Your task to perform on an android device: turn off notifications settings in the gmail app Image 0: 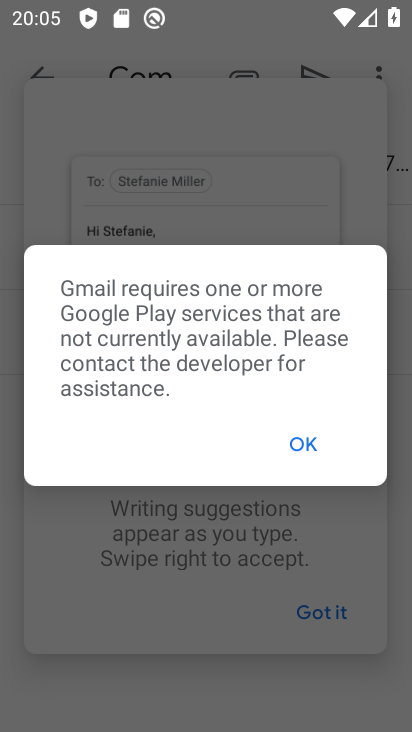
Step 0: press home button
Your task to perform on an android device: turn off notifications settings in the gmail app Image 1: 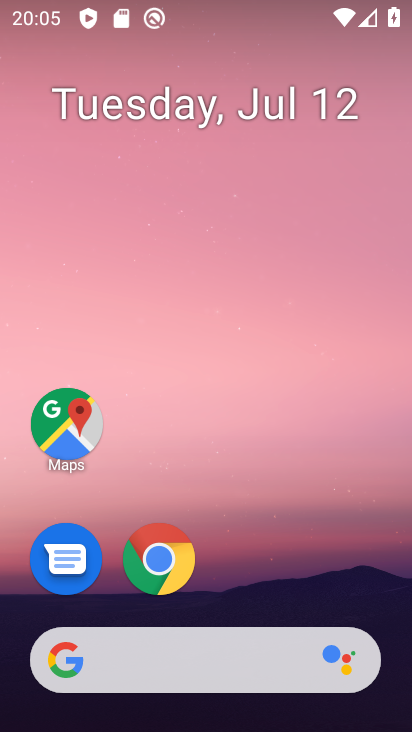
Step 1: drag from (328, 570) to (332, 154)
Your task to perform on an android device: turn off notifications settings in the gmail app Image 2: 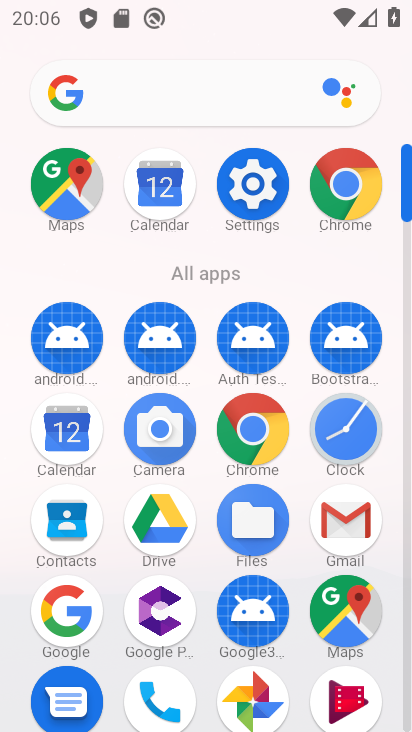
Step 2: click (349, 516)
Your task to perform on an android device: turn off notifications settings in the gmail app Image 3: 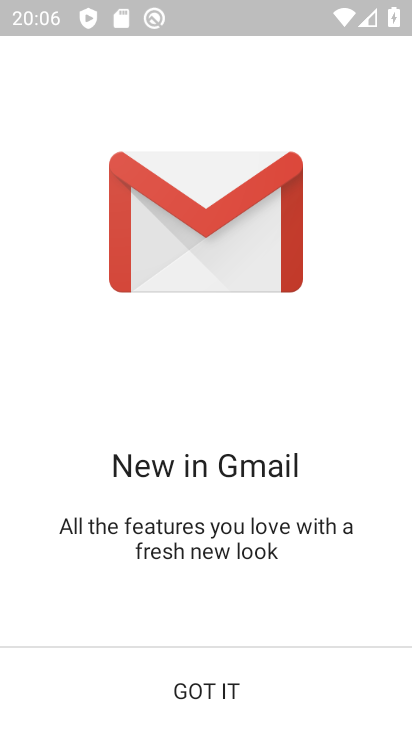
Step 3: click (233, 677)
Your task to perform on an android device: turn off notifications settings in the gmail app Image 4: 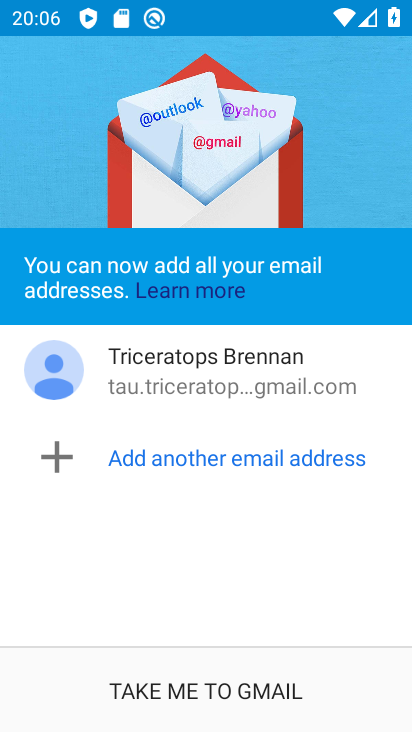
Step 4: click (215, 699)
Your task to perform on an android device: turn off notifications settings in the gmail app Image 5: 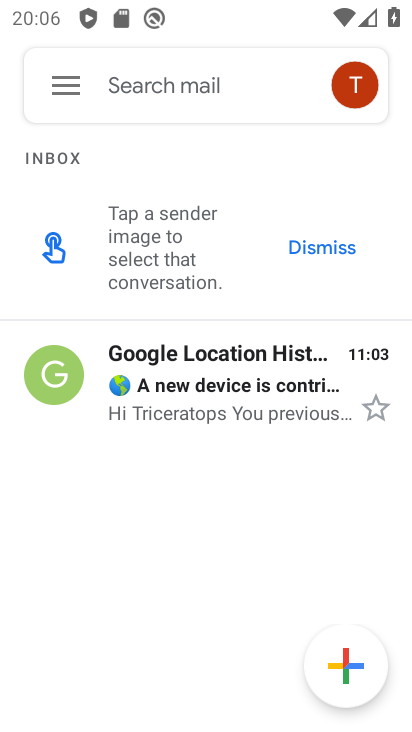
Step 5: click (63, 79)
Your task to perform on an android device: turn off notifications settings in the gmail app Image 6: 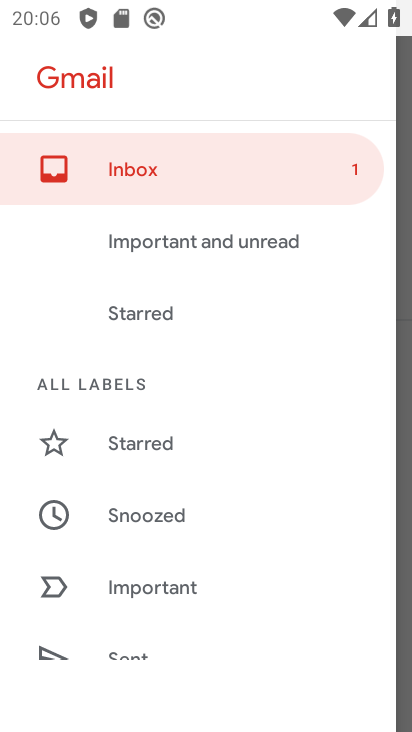
Step 6: drag from (260, 458) to (278, 331)
Your task to perform on an android device: turn off notifications settings in the gmail app Image 7: 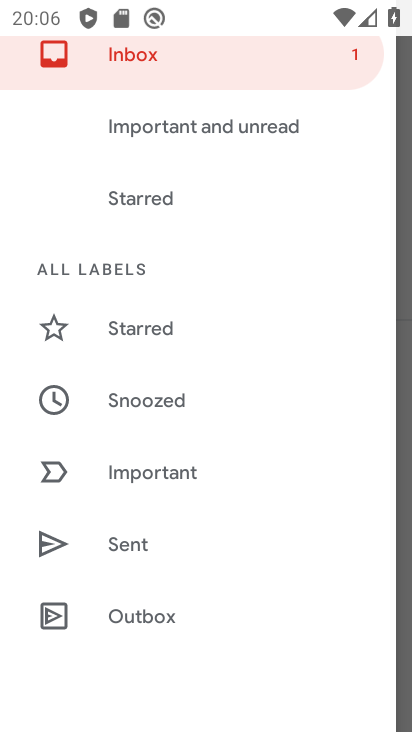
Step 7: drag from (292, 408) to (293, 303)
Your task to perform on an android device: turn off notifications settings in the gmail app Image 8: 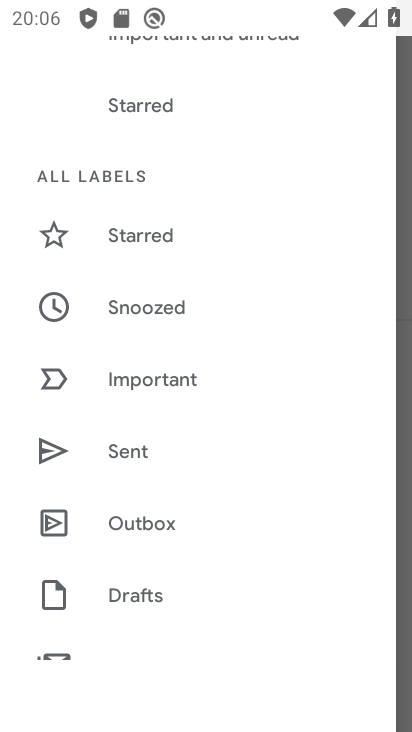
Step 8: drag from (313, 445) to (310, 322)
Your task to perform on an android device: turn off notifications settings in the gmail app Image 9: 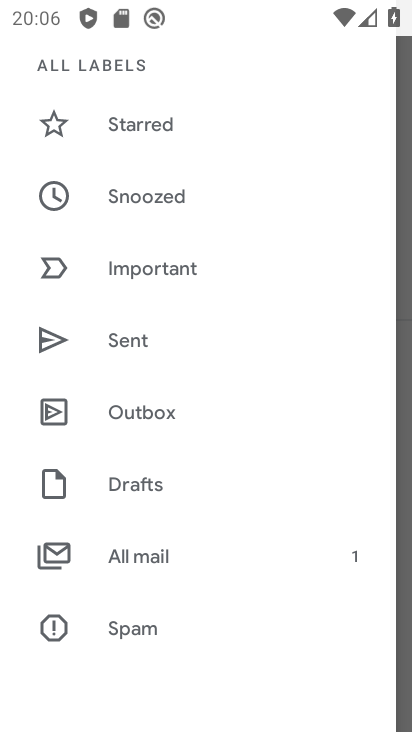
Step 9: drag from (303, 443) to (303, 288)
Your task to perform on an android device: turn off notifications settings in the gmail app Image 10: 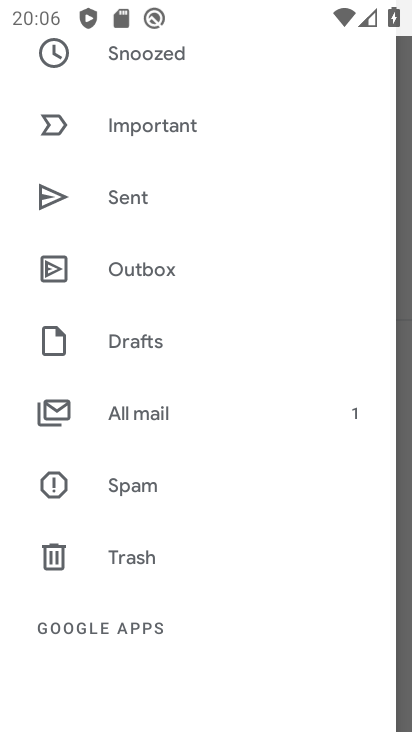
Step 10: drag from (297, 426) to (298, 320)
Your task to perform on an android device: turn off notifications settings in the gmail app Image 11: 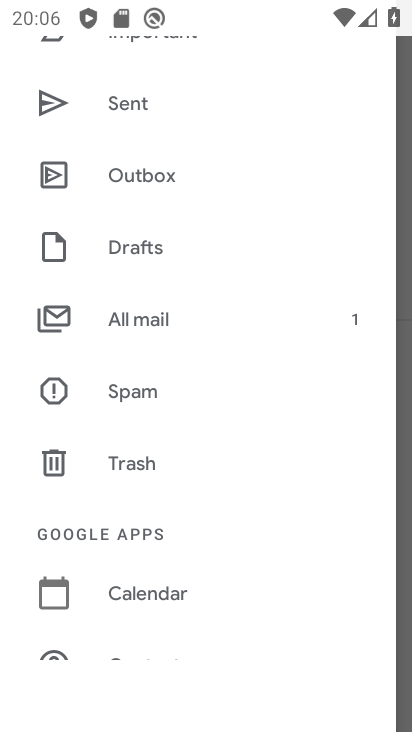
Step 11: drag from (280, 474) to (272, 223)
Your task to perform on an android device: turn off notifications settings in the gmail app Image 12: 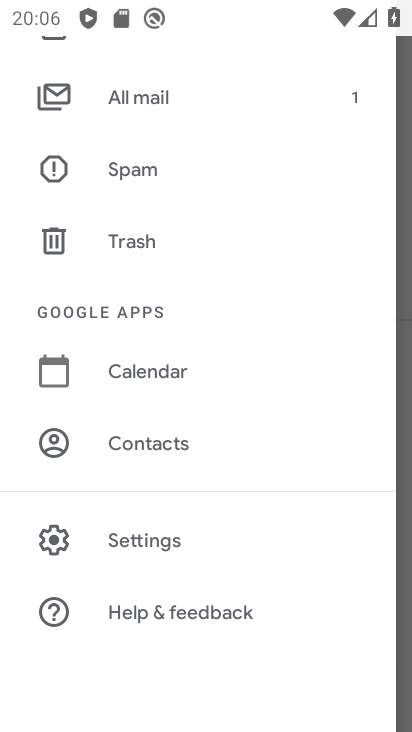
Step 12: click (241, 540)
Your task to perform on an android device: turn off notifications settings in the gmail app Image 13: 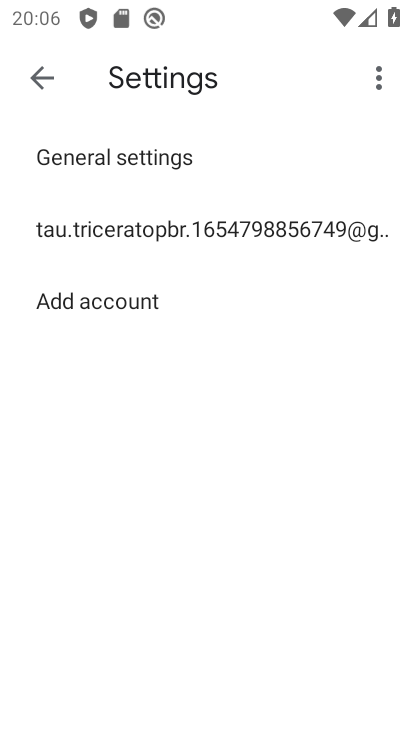
Step 13: click (239, 230)
Your task to perform on an android device: turn off notifications settings in the gmail app Image 14: 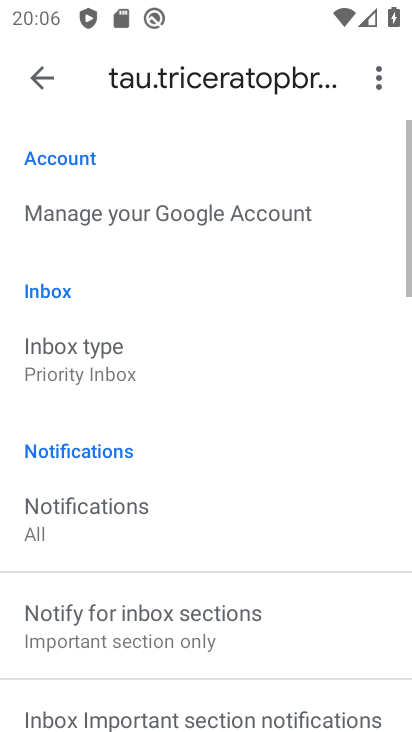
Step 14: drag from (271, 367) to (278, 311)
Your task to perform on an android device: turn off notifications settings in the gmail app Image 15: 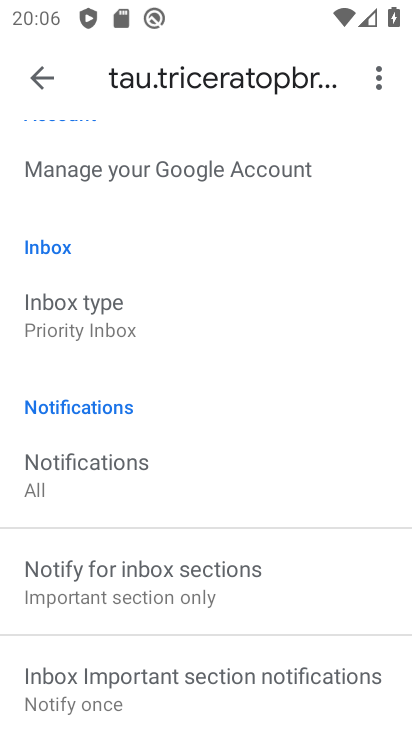
Step 15: drag from (284, 418) to (287, 330)
Your task to perform on an android device: turn off notifications settings in the gmail app Image 16: 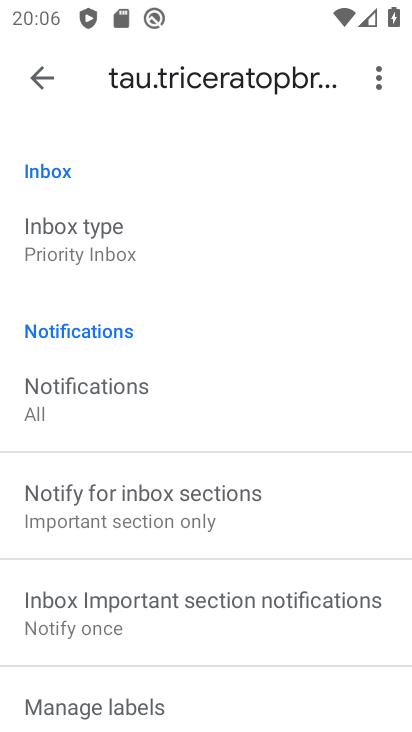
Step 16: drag from (297, 414) to (305, 323)
Your task to perform on an android device: turn off notifications settings in the gmail app Image 17: 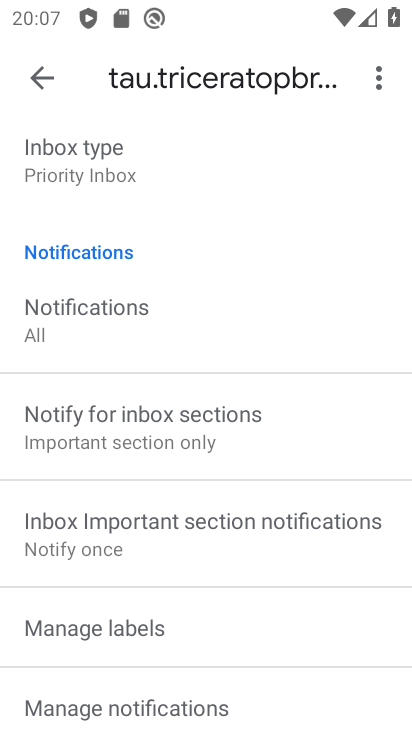
Step 17: drag from (308, 398) to (306, 306)
Your task to perform on an android device: turn off notifications settings in the gmail app Image 18: 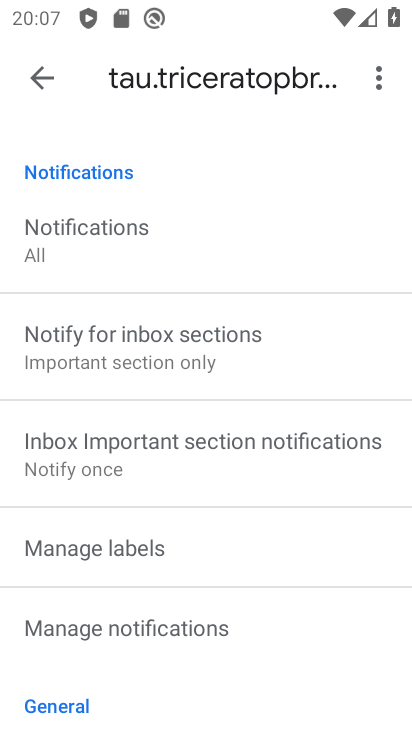
Step 18: drag from (309, 484) to (313, 380)
Your task to perform on an android device: turn off notifications settings in the gmail app Image 19: 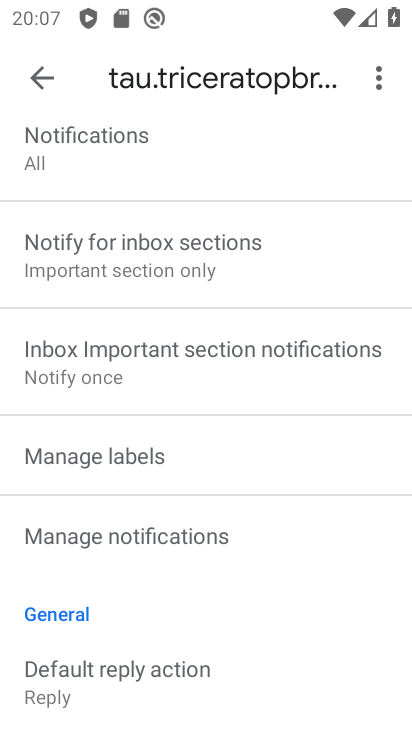
Step 19: drag from (321, 496) to (321, 373)
Your task to perform on an android device: turn off notifications settings in the gmail app Image 20: 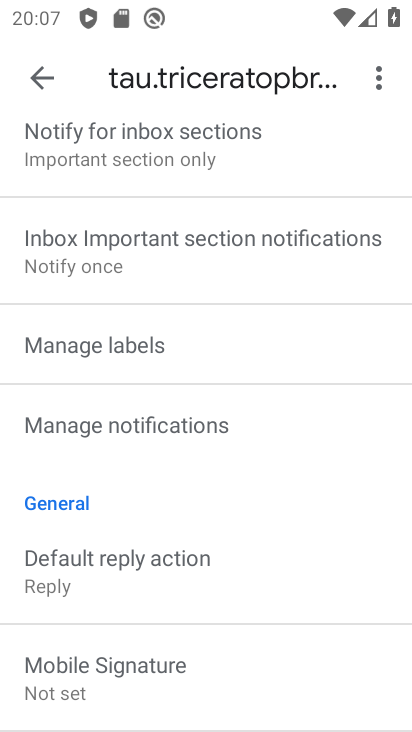
Step 20: click (296, 446)
Your task to perform on an android device: turn off notifications settings in the gmail app Image 21: 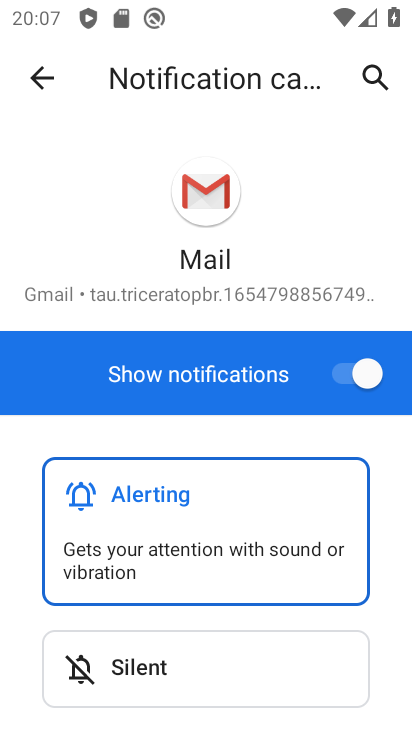
Step 21: click (359, 380)
Your task to perform on an android device: turn off notifications settings in the gmail app Image 22: 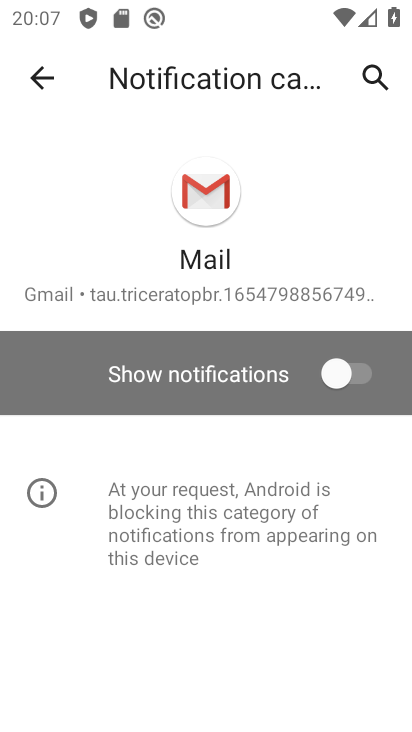
Step 22: task complete